Your task to perform on an android device: open the mobile data screen to see how much data has been used Image 0: 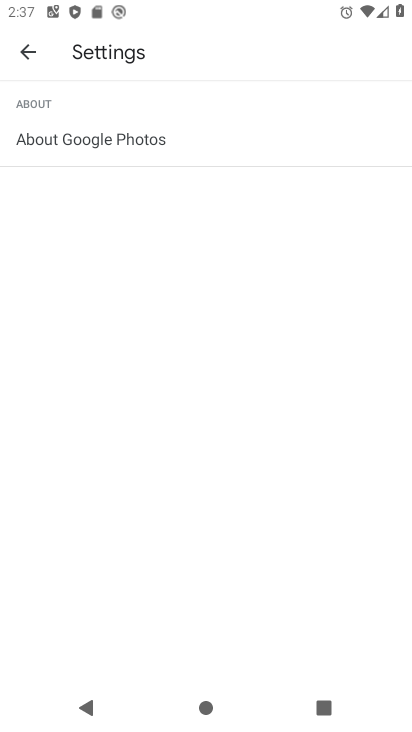
Step 0: click (140, 497)
Your task to perform on an android device: open the mobile data screen to see how much data has been used Image 1: 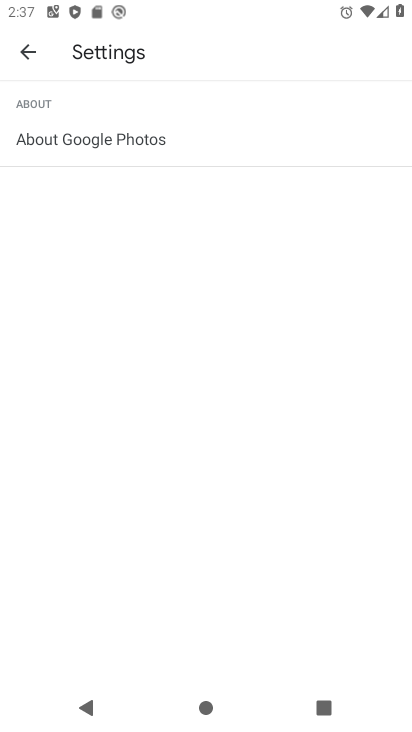
Step 1: press home button
Your task to perform on an android device: open the mobile data screen to see how much data has been used Image 2: 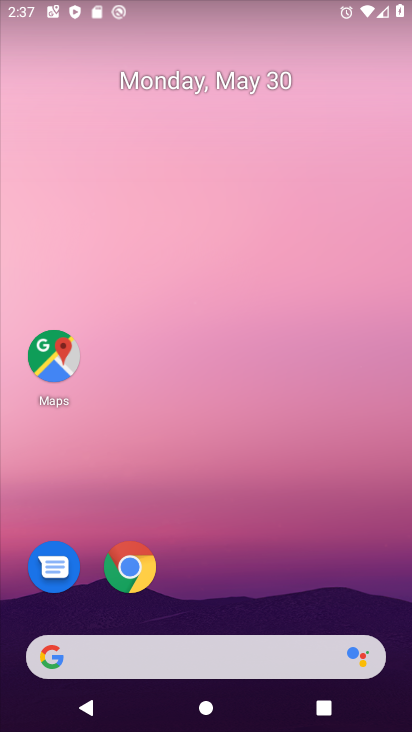
Step 2: drag from (231, 531) to (238, 219)
Your task to perform on an android device: open the mobile data screen to see how much data has been used Image 3: 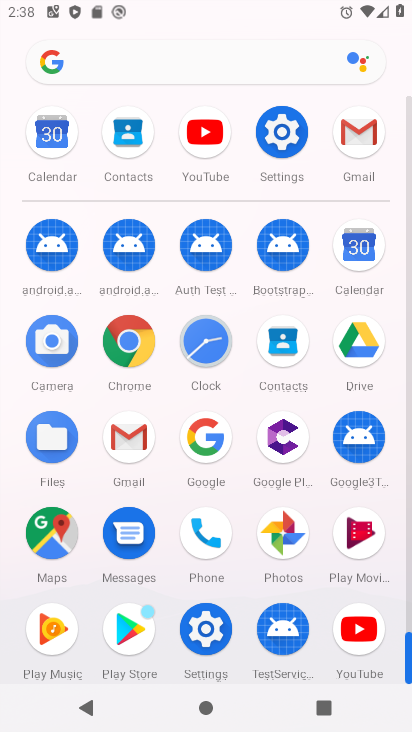
Step 3: click (277, 142)
Your task to perform on an android device: open the mobile data screen to see how much data has been used Image 4: 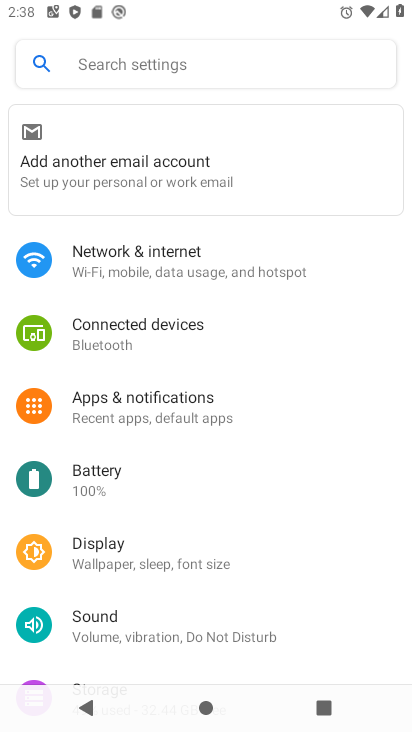
Step 4: click (181, 286)
Your task to perform on an android device: open the mobile data screen to see how much data has been used Image 5: 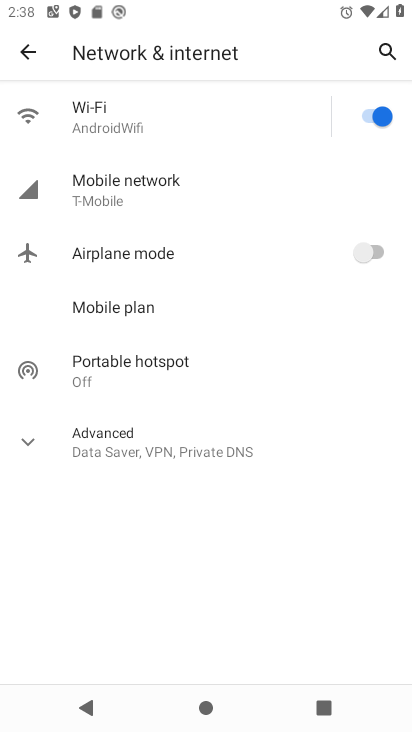
Step 5: click (166, 191)
Your task to perform on an android device: open the mobile data screen to see how much data has been used Image 6: 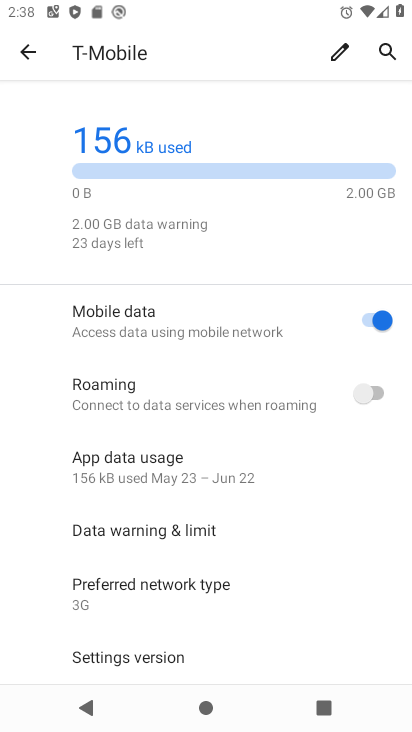
Step 6: click (186, 539)
Your task to perform on an android device: open the mobile data screen to see how much data has been used Image 7: 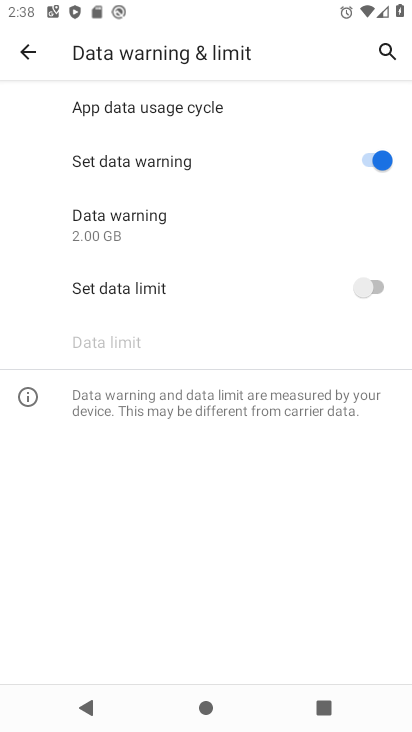
Step 7: click (32, 41)
Your task to perform on an android device: open the mobile data screen to see how much data has been used Image 8: 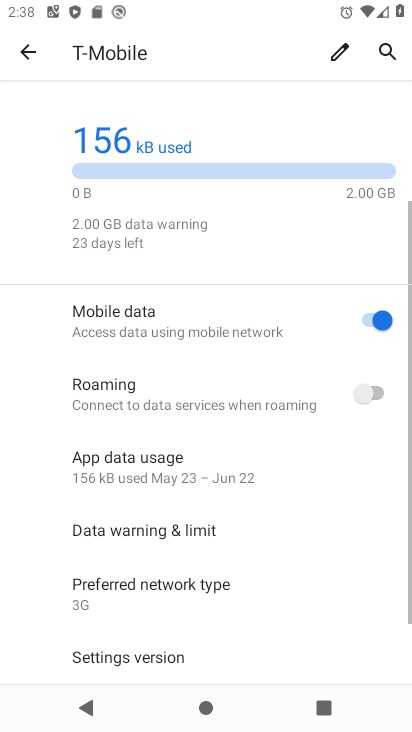
Step 8: click (160, 466)
Your task to perform on an android device: open the mobile data screen to see how much data has been used Image 9: 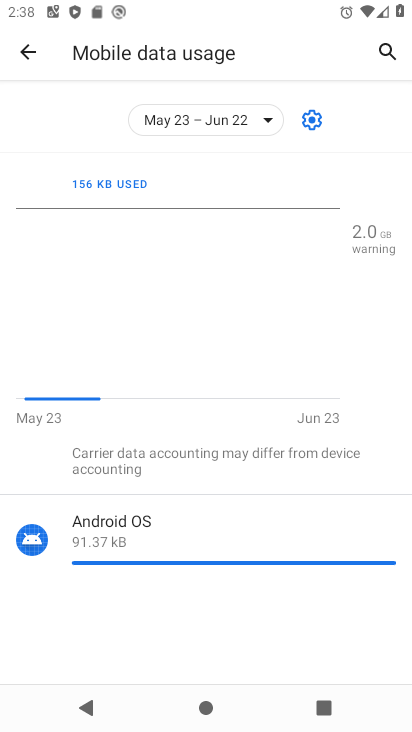
Step 9: task complete